Your task to perform on an android device: turn on the 24-hour format for clock Image 0: 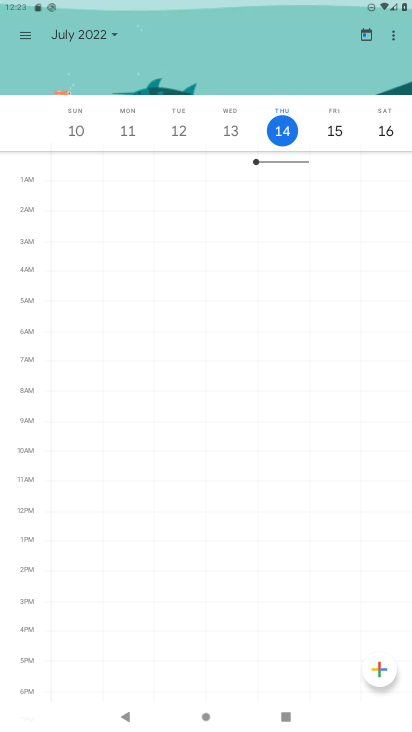
Step 0: press home button
Your task to perform on an android device: turn on the 24-hour format for clock Image 1: 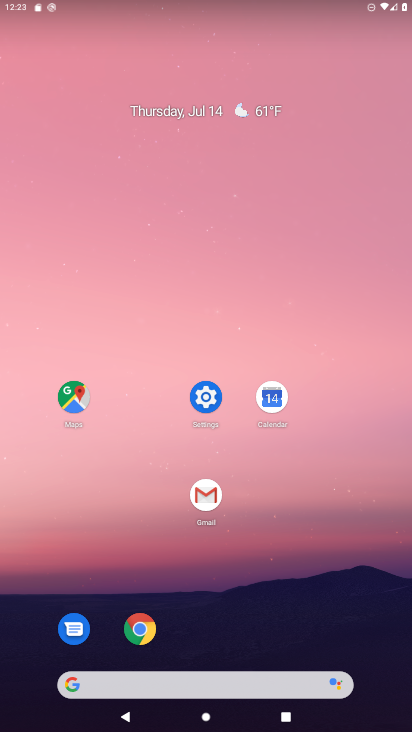
Step 1: drag from (390, 718) to (328, 176)
Your task to perform on an android device: turn on the 24-hour format for clock Image 2: 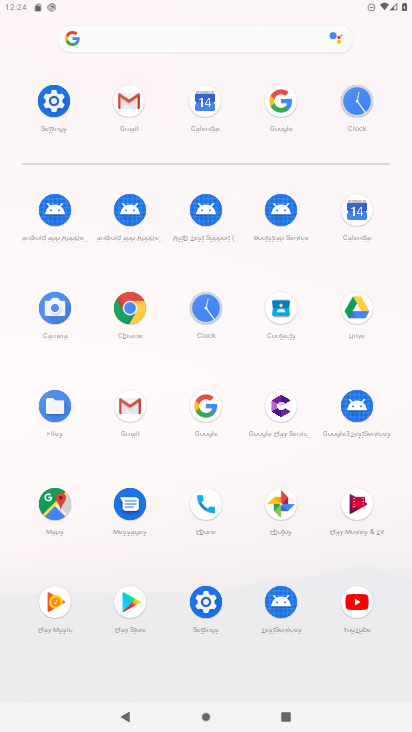
Step 2: click (201, 308)
Your task to perform on an android device: turn on the 24-hour format for clock Image 3: 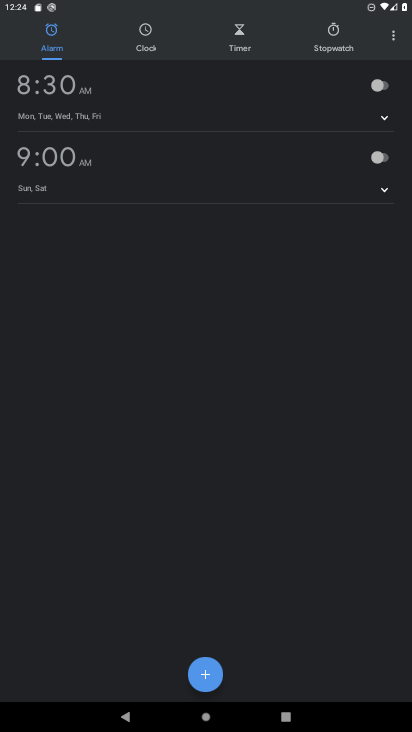
Step 3: click (394, 37)
Your task to perform on an android device: turn on the 24-hour format for clock Image 4: 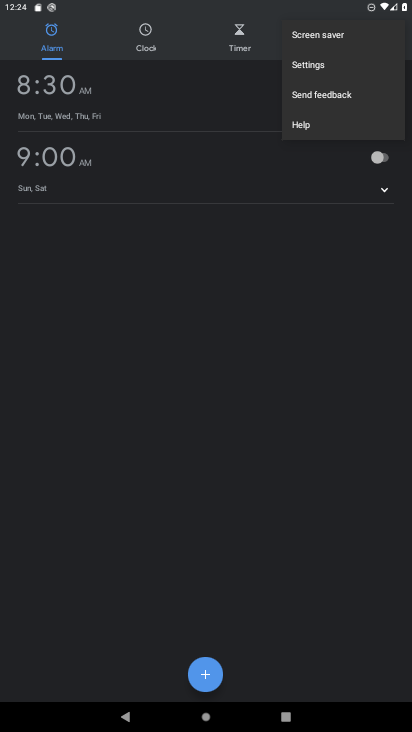
Step 4: click (319, 66)
Your task to perform on an android device: turn on the 24-hour format for clock Image 5: 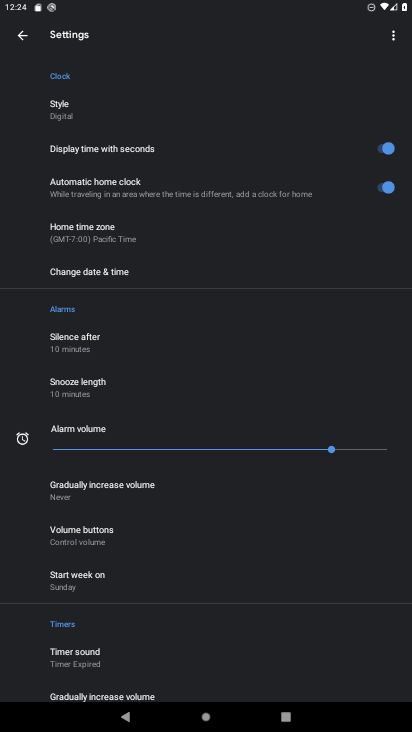
Step 5: click (155, 276)
Your task to perform on an android device: turn on the 24-hour format for clock Image 6: 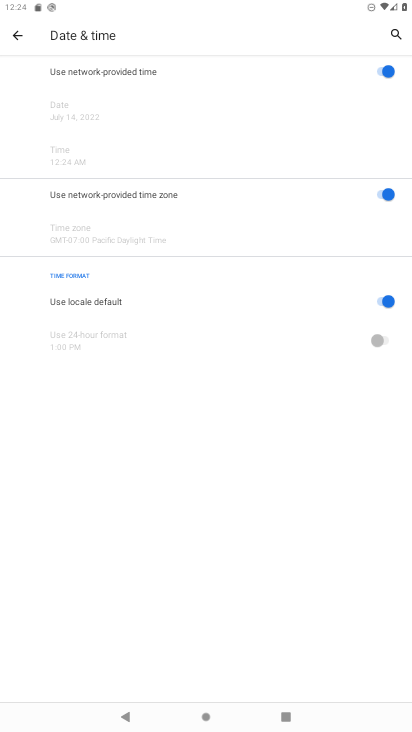
Step 6: click (379, 294)
Your task to perform on an android device: turn on the 24-hour format for clock Image 7: 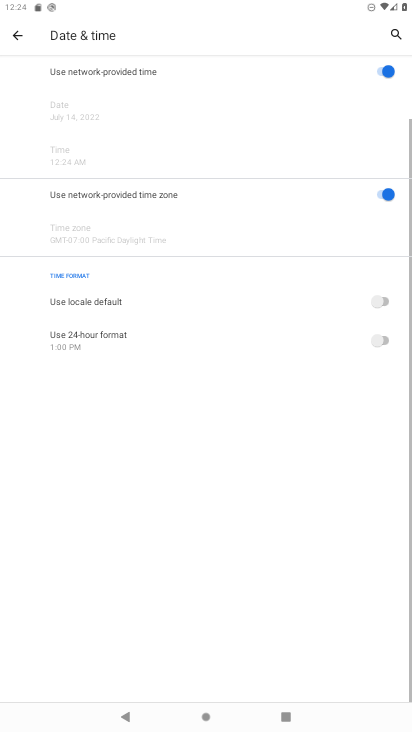
Step 7: click (392, 338)
Your task to perform on an android device: turn on the 24-hour format for clock Image 8: 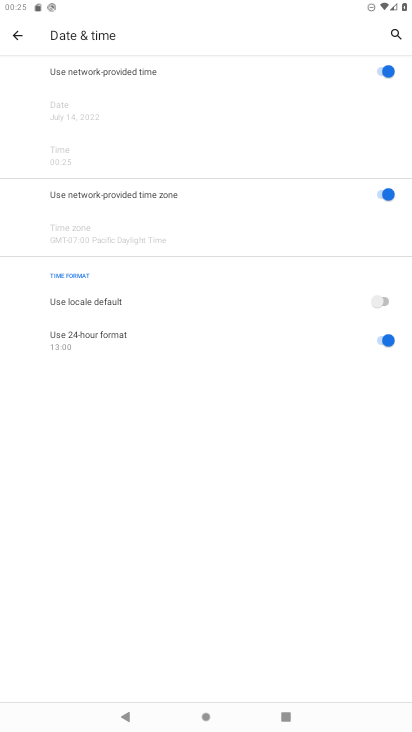
Step 8: task complete